Your task to perform on an android device: move a message to another label in the gmail app Image 0: 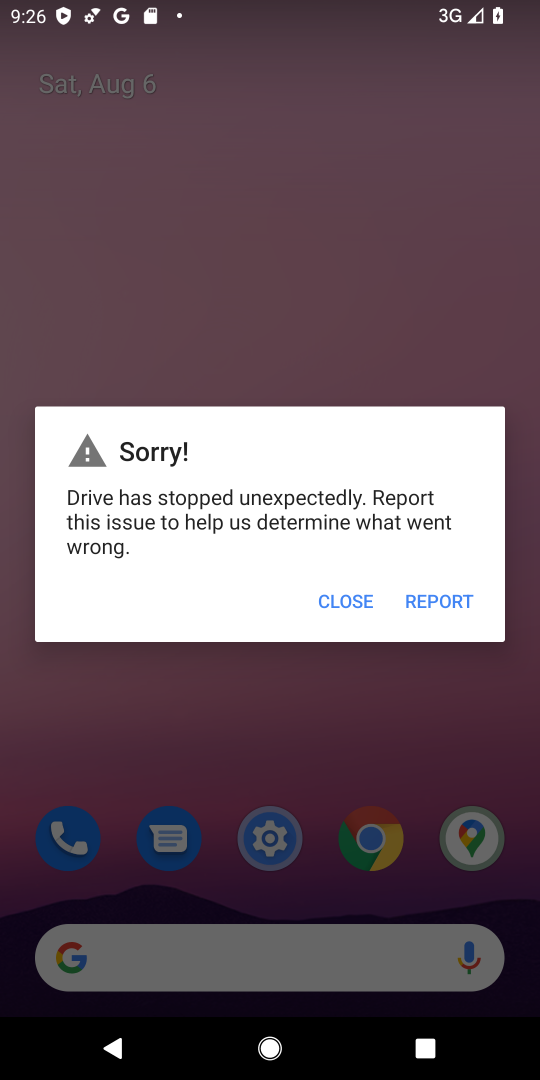
Step 0: press home button
Your task to perform on an android device: move a message to another label in the gmail app Image 1: 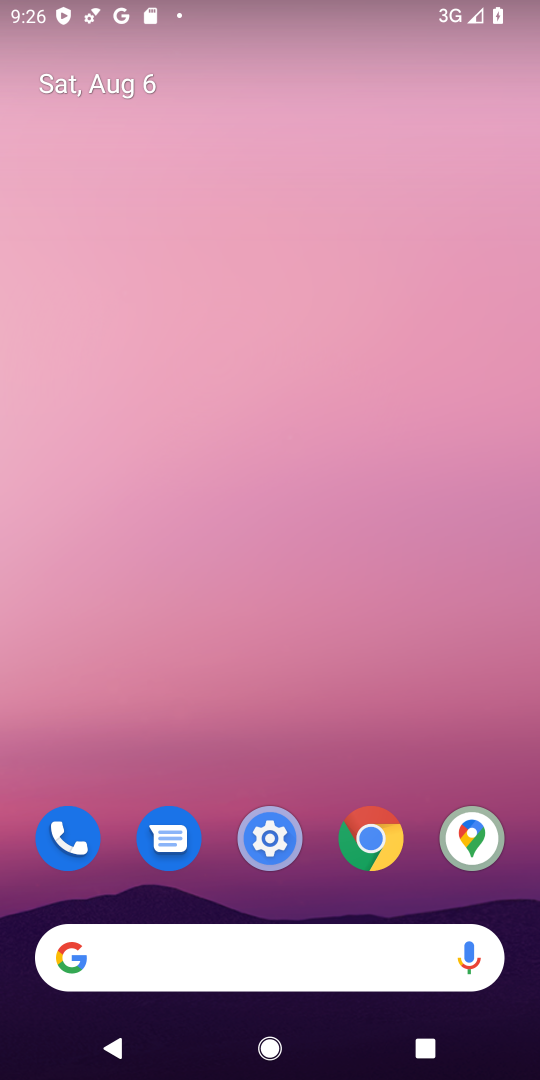
Step 1: drag from (434, 779) to (356, 298)
Your task to perform on an android device: move a message to another label in the gmail app Image 2: 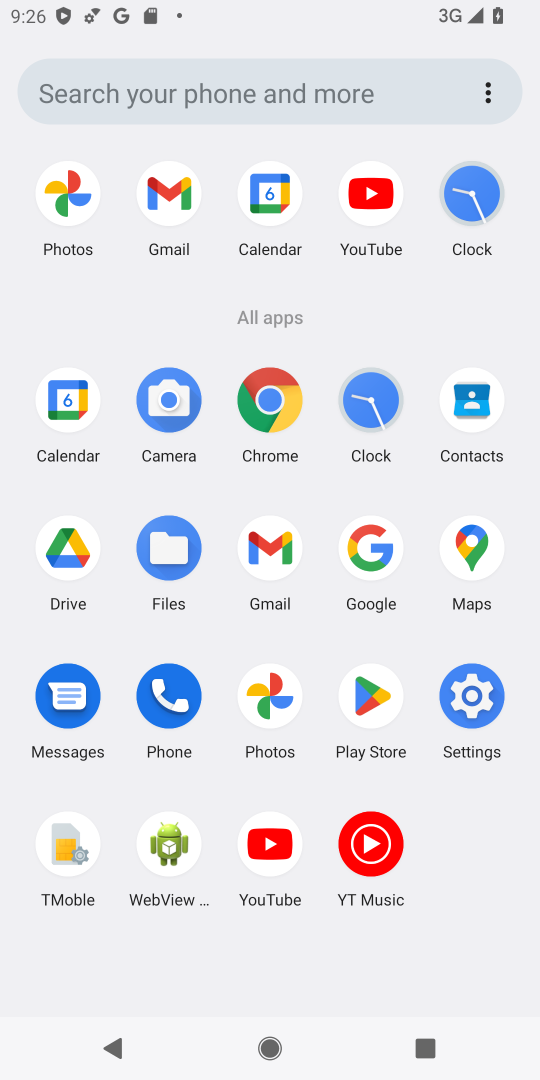
Step 2: click (184, 210)
Your task to perform on an android device: move a message to another label in the gmail app Image 3: 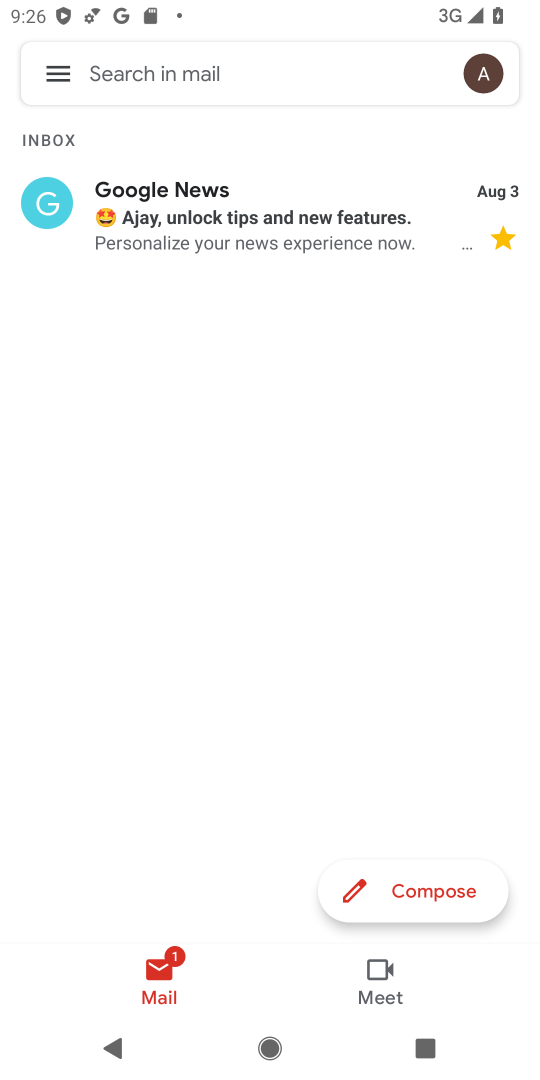
Step 3: click (45, 95)
Your task to perform on an android device: move a message to another label in the gmail app Image 4: 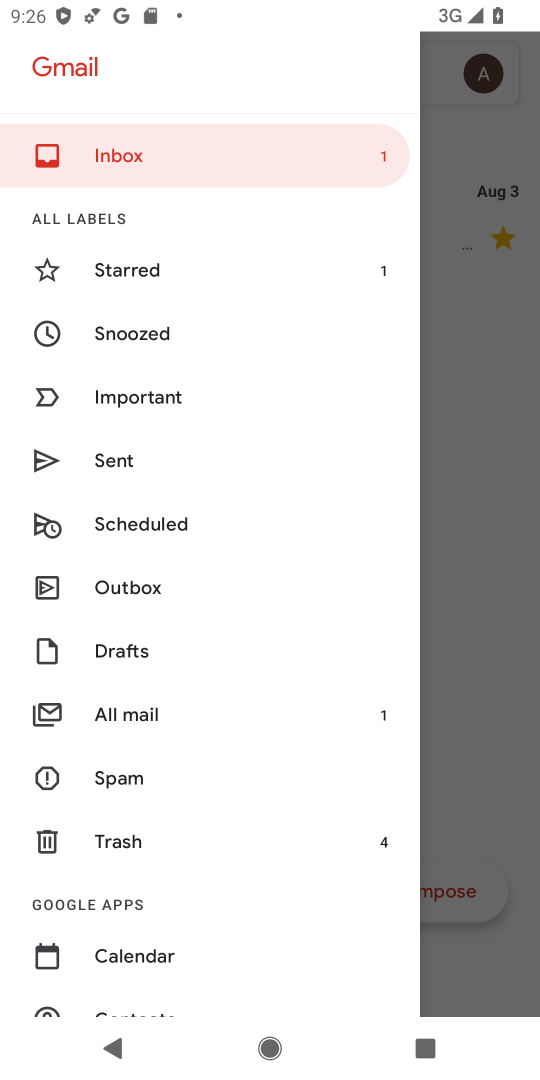
Step 4: click (127, 722)
Your task to perform on an android device: move a message to another label in the gmail app Image 5: 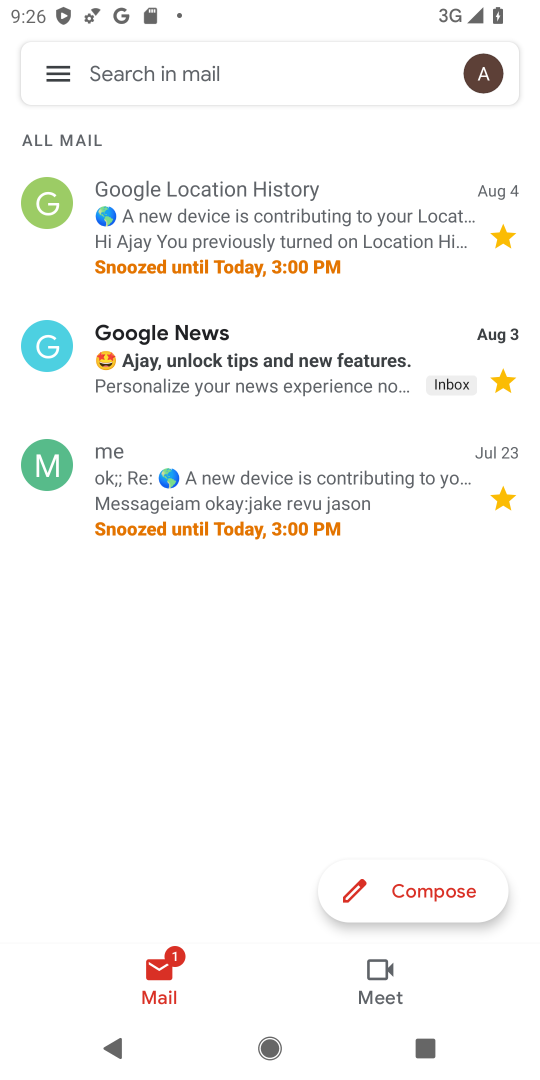
Step 5: click (54, 465)
Your task to perform on an android device: move a message to another label in the gmail app Image 6: 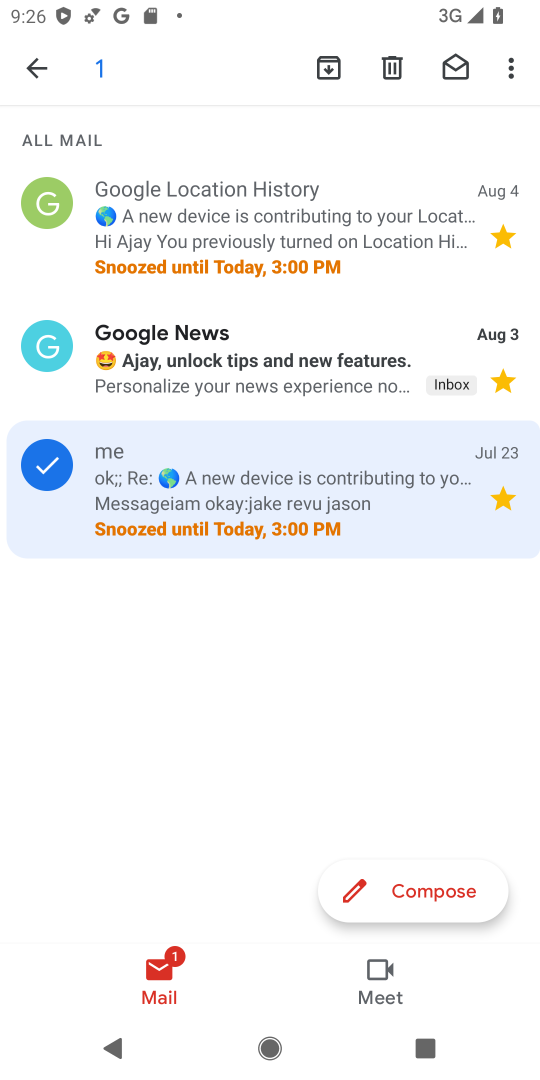
Step 6: click (516, 53)
Your task to perform on an android device: move a message to another label in the gmail app Image 7: 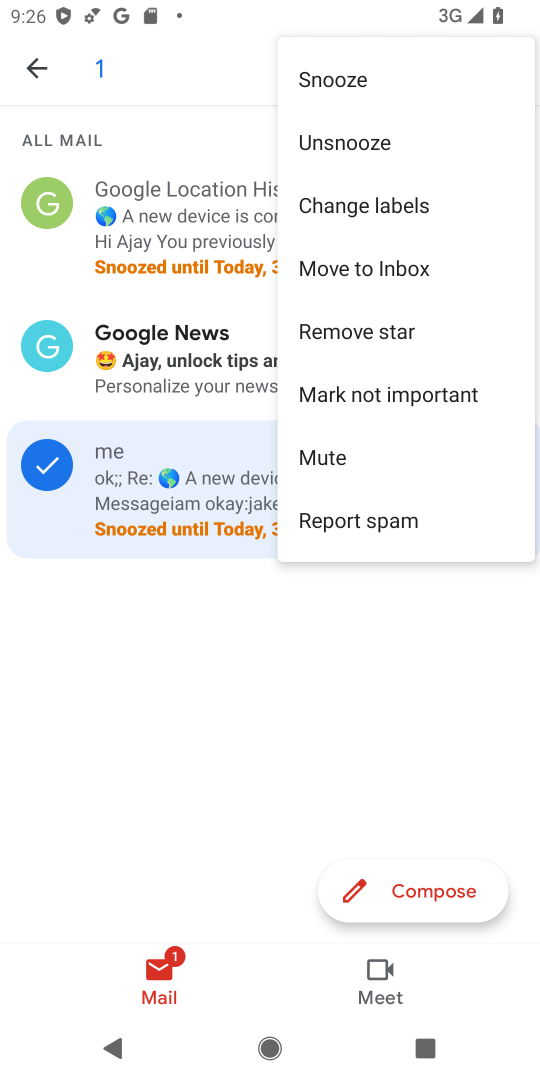
Step 7: click (373, 205)
Your task to perform on an android device: move a message to another label in the gmail app Image 8: 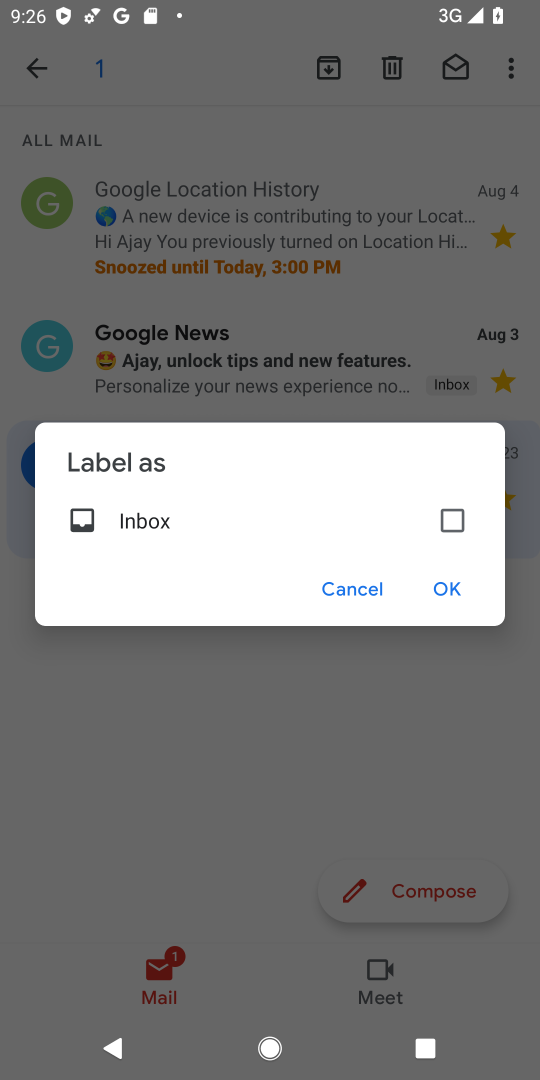
Step 8: click (438, 503)
Your task to perform on an android device: move a message to another label in the gmail app Image 9: 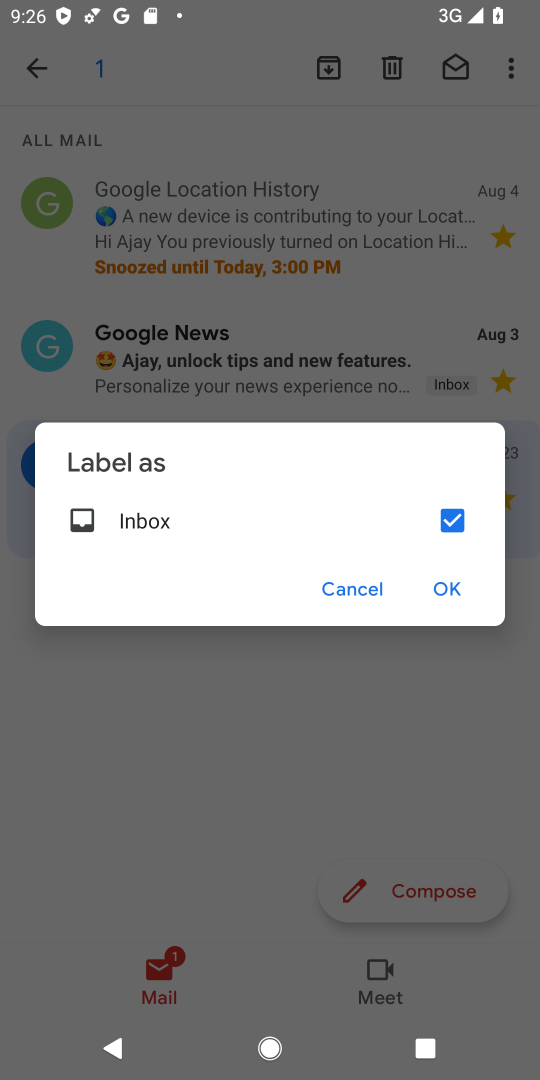
Step 9: click (449, 594)
Your task to perform on an android device: move a message to another label in the gmail app Image 10: 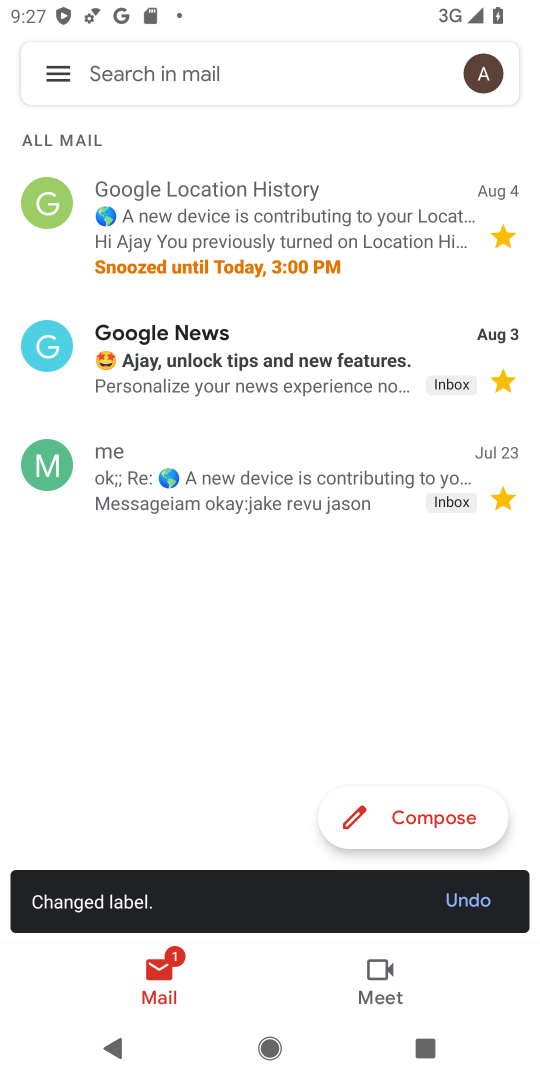
Step 10: task complete